Your task to perform on an android device: What is the news today? Image 0: 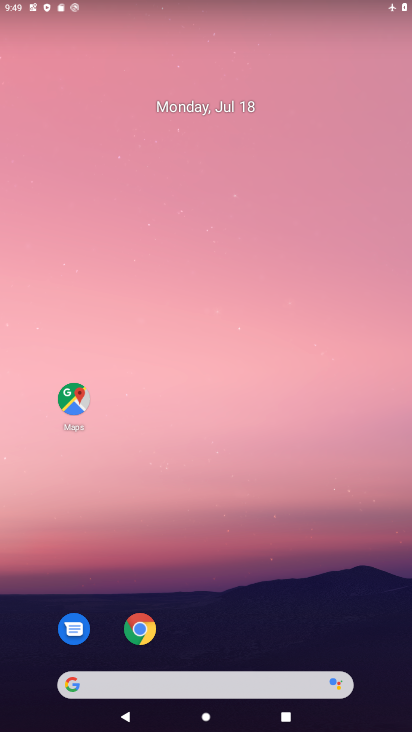
Step 0: drag from (231, 613) to (231, 29)
Your task to perform on an android device: What is the news today? Image 1: 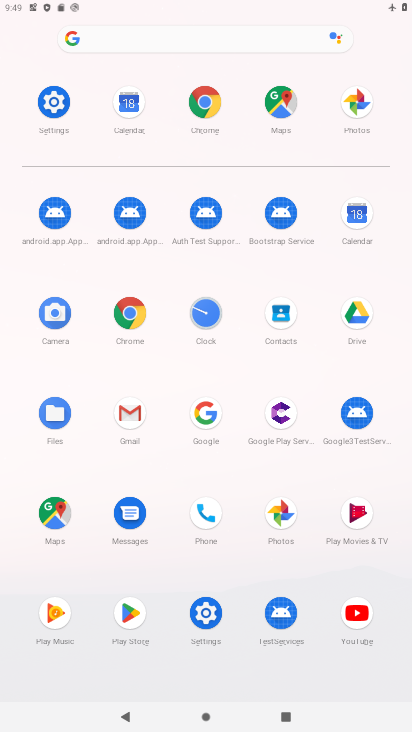
Step 1: click (198, 104)
Your task to perform on an android device: What is the news today? Image 2: 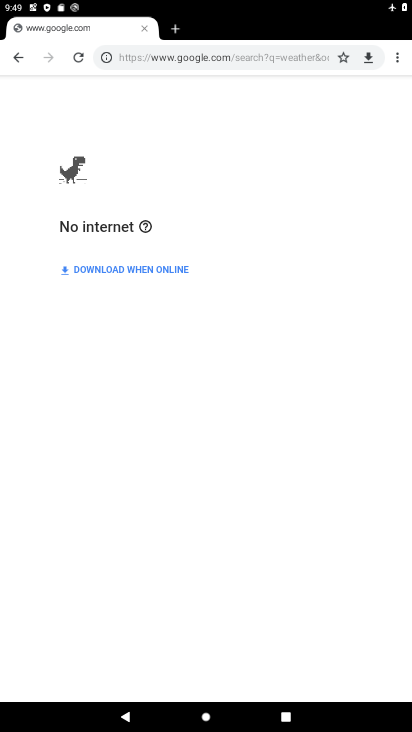
Step 2: click (210, 52)
Your task to perform on an android device: What is the news today? Image 3: 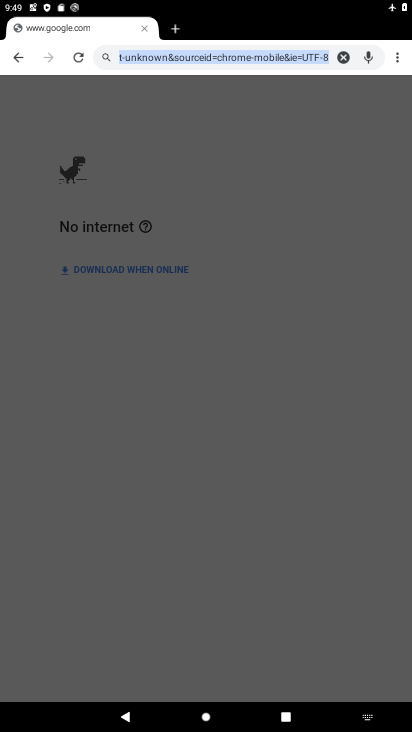
Step 3: type "news"
Your task to perform on an android device: What is the news today? Image 4: 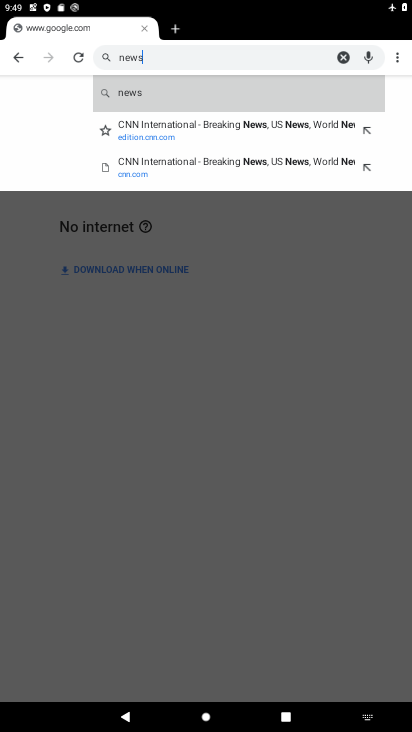
Step 4: press enter
Your task to perform on an android device: What is the news today? Image 5: 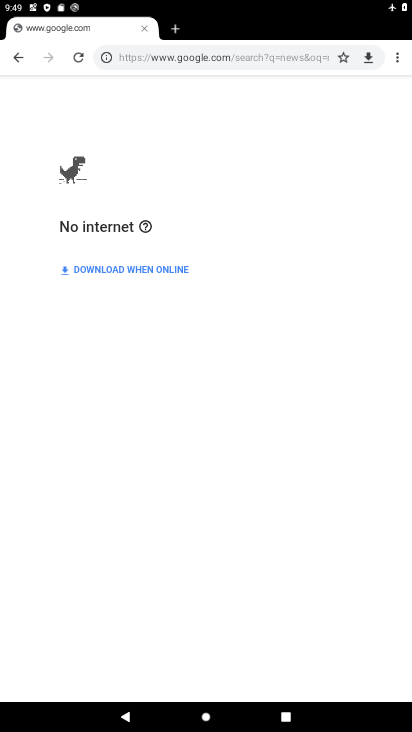
Step 5: task complete